Your task to perform on an android device: Open Amazon Image 0: 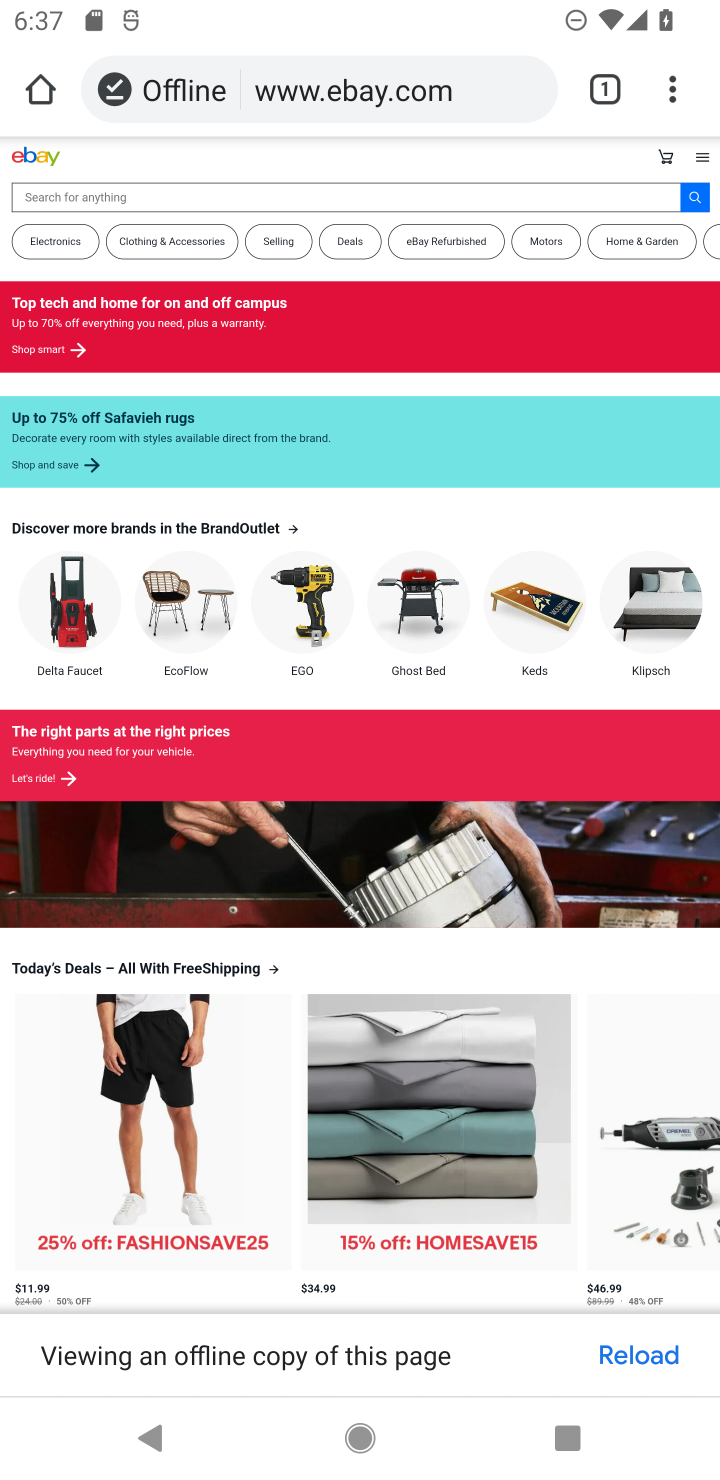
Step 0: press home button
Your task to perform on an android device: Open Amazon Image 1: 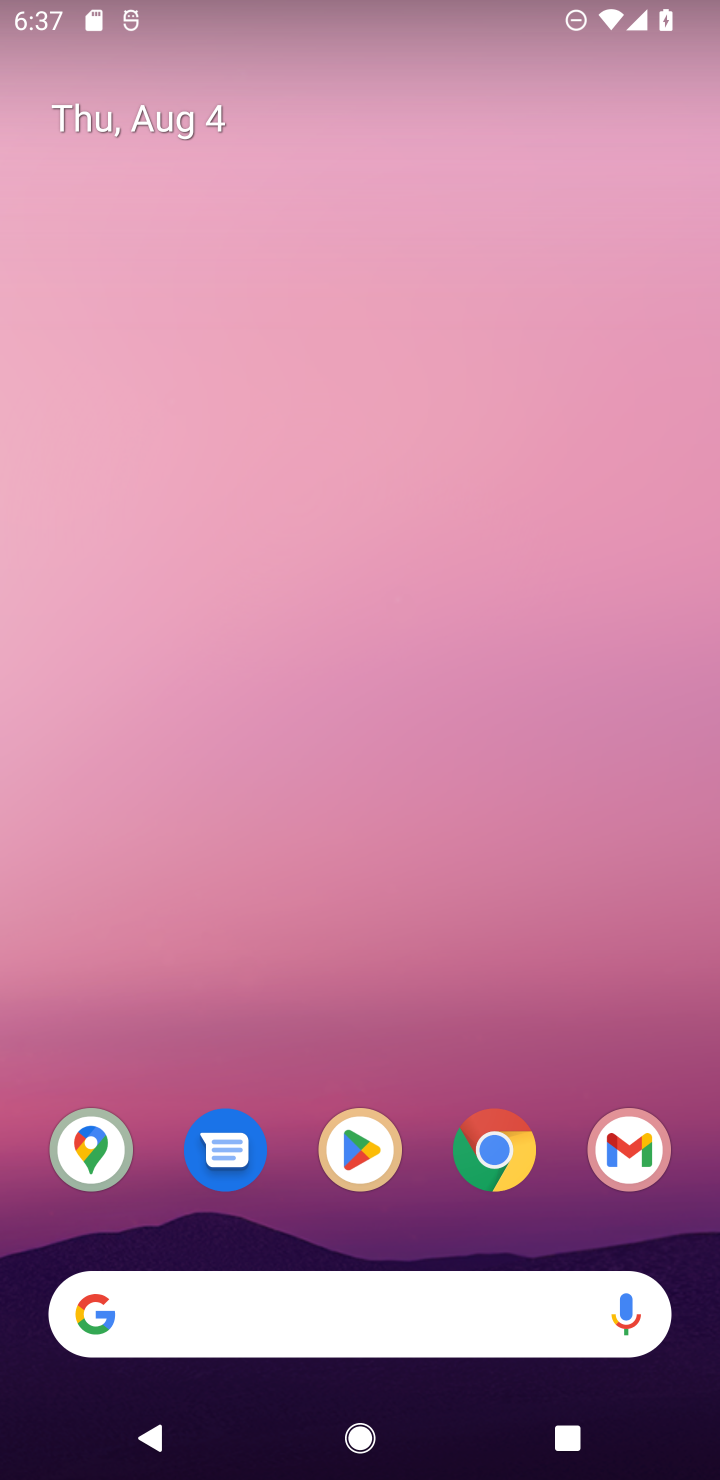
Step 1: drag from (450, 1319) to (628, 55)
Your task to perform on an android device: Open Amazon Image 2: 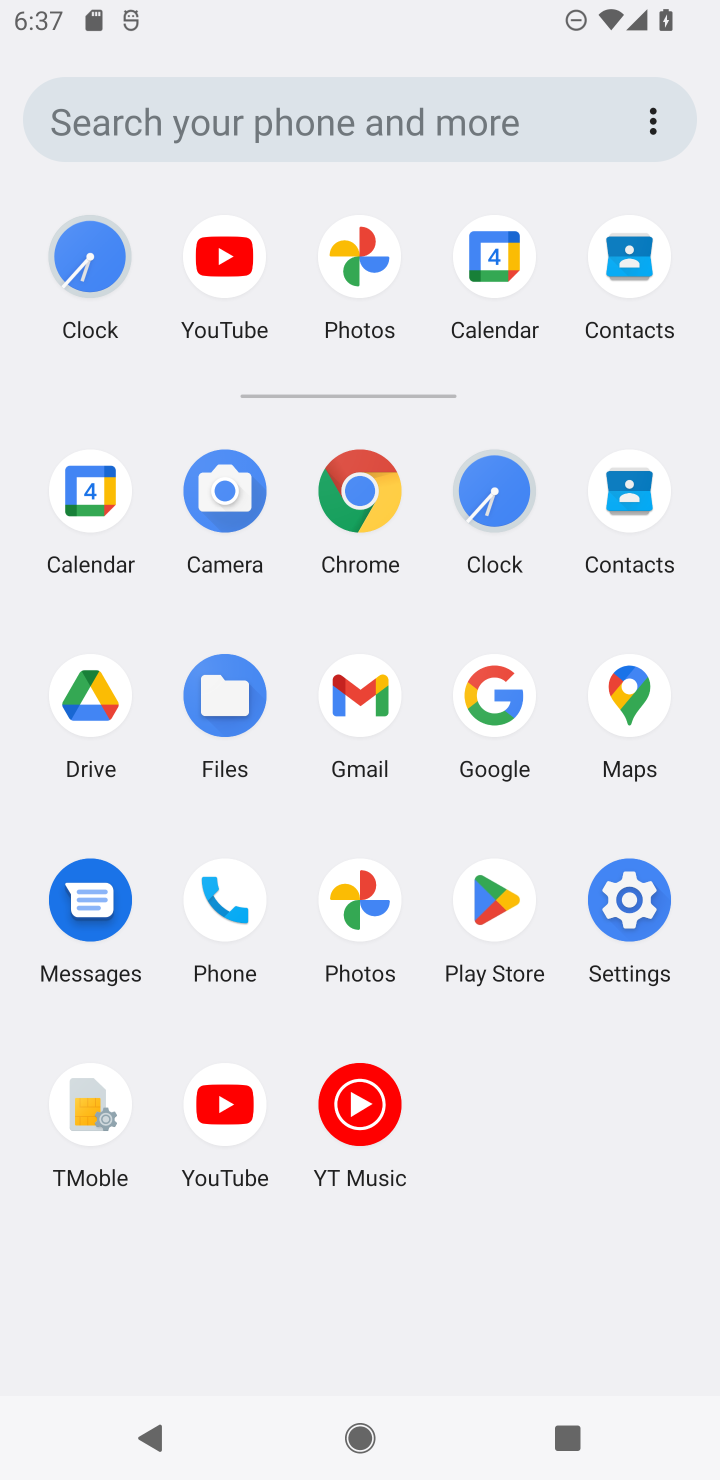
Step 2: click (380, 490)
Your task to perform on an android device: Open Amazon Image 3: 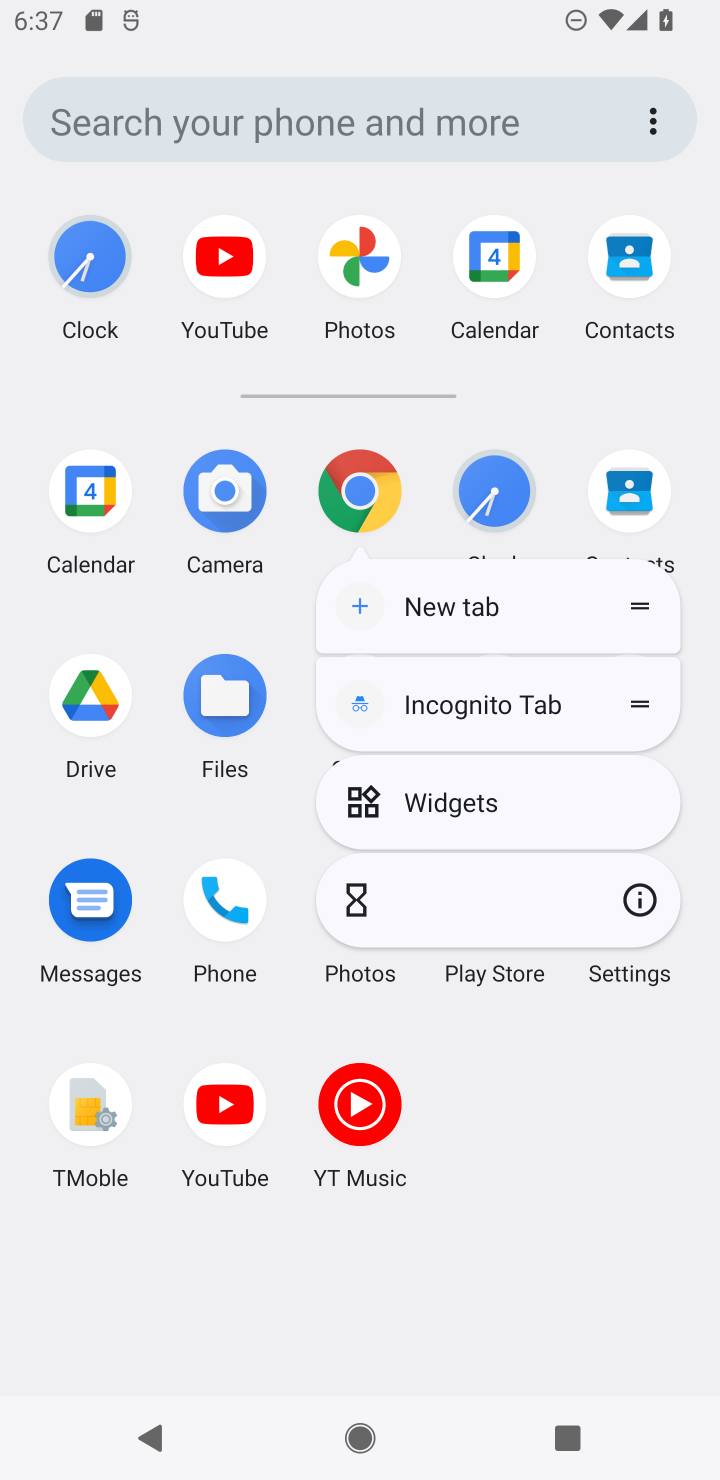
Step 3: click (341, 473)
Your task to perform on an android device: Open Amazon Image 4: 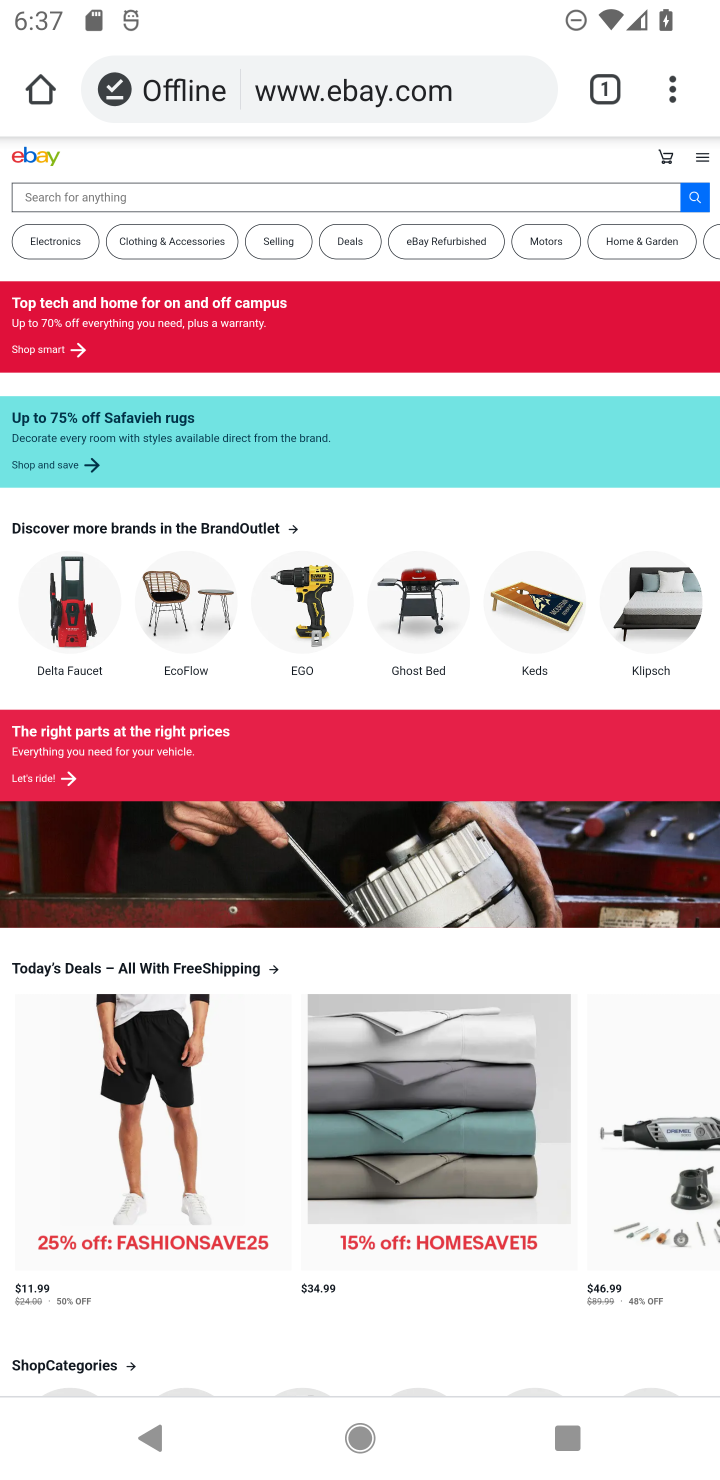
Step 4: drag from (673, 85) to (445, 274)
Your task to perform on an android device: Open Amazon Image 5: 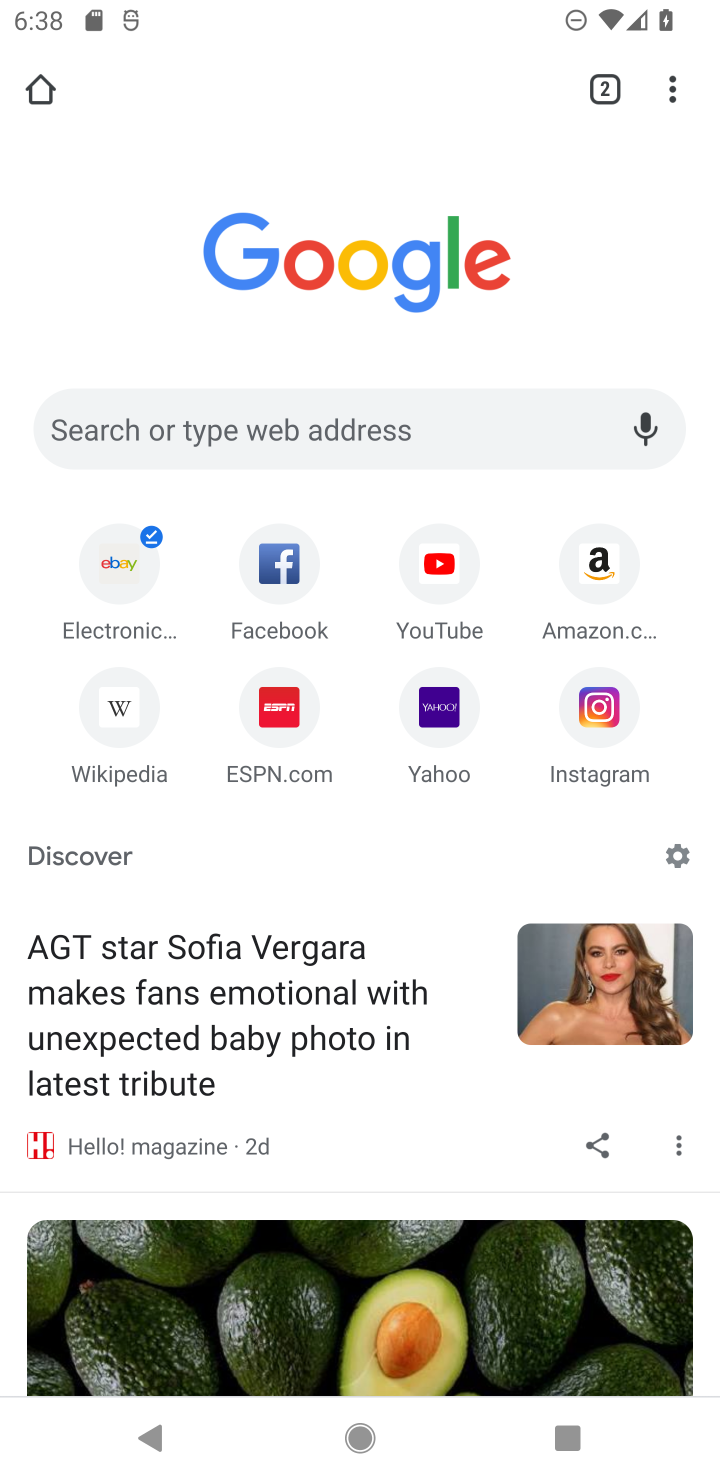
Step 5: click (581, 556)
Your task to perform on an android device: Open Amazon Image 6: 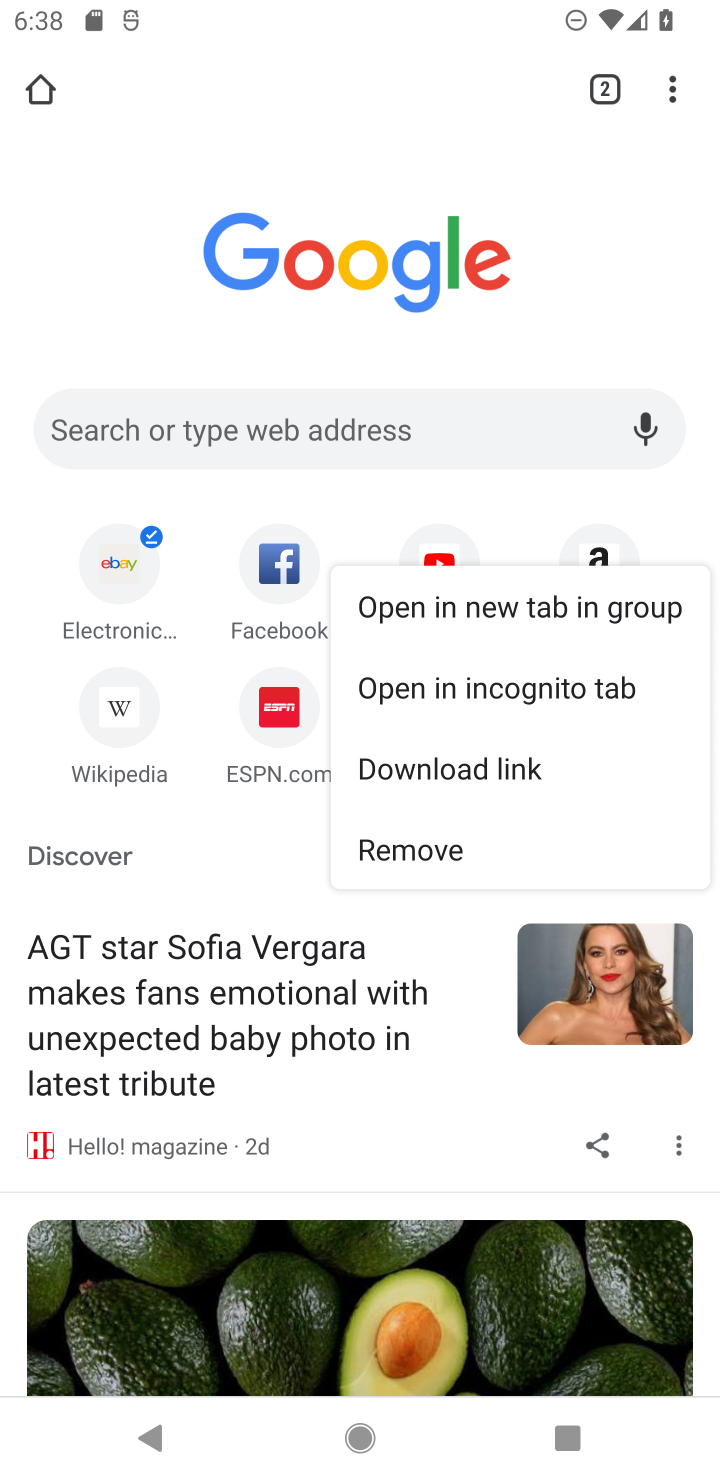
Step 6: click (588, 545)
Your task to perform on an android device: Open Amazon Image 7: 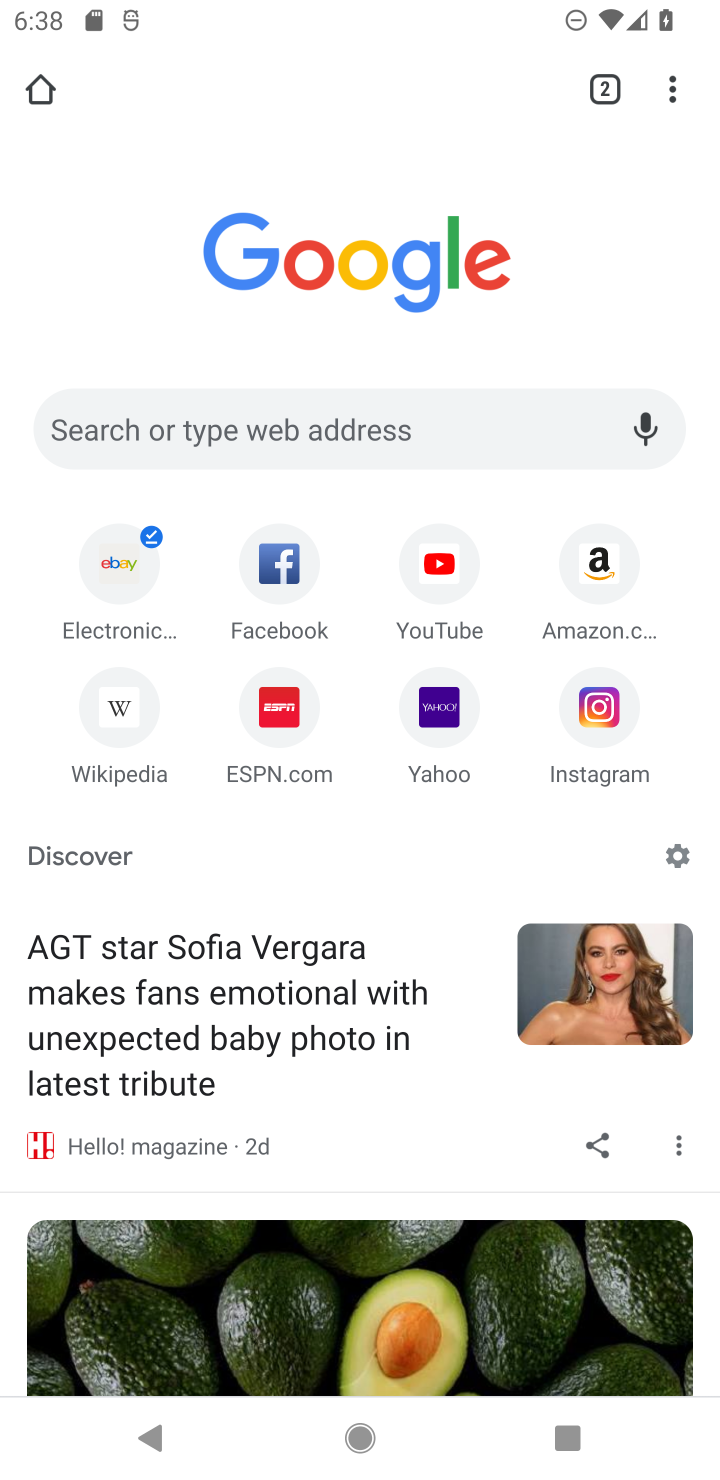
Step 7: click (588, 545)
Your task to perform on an android device: Open Amazon Image 8: 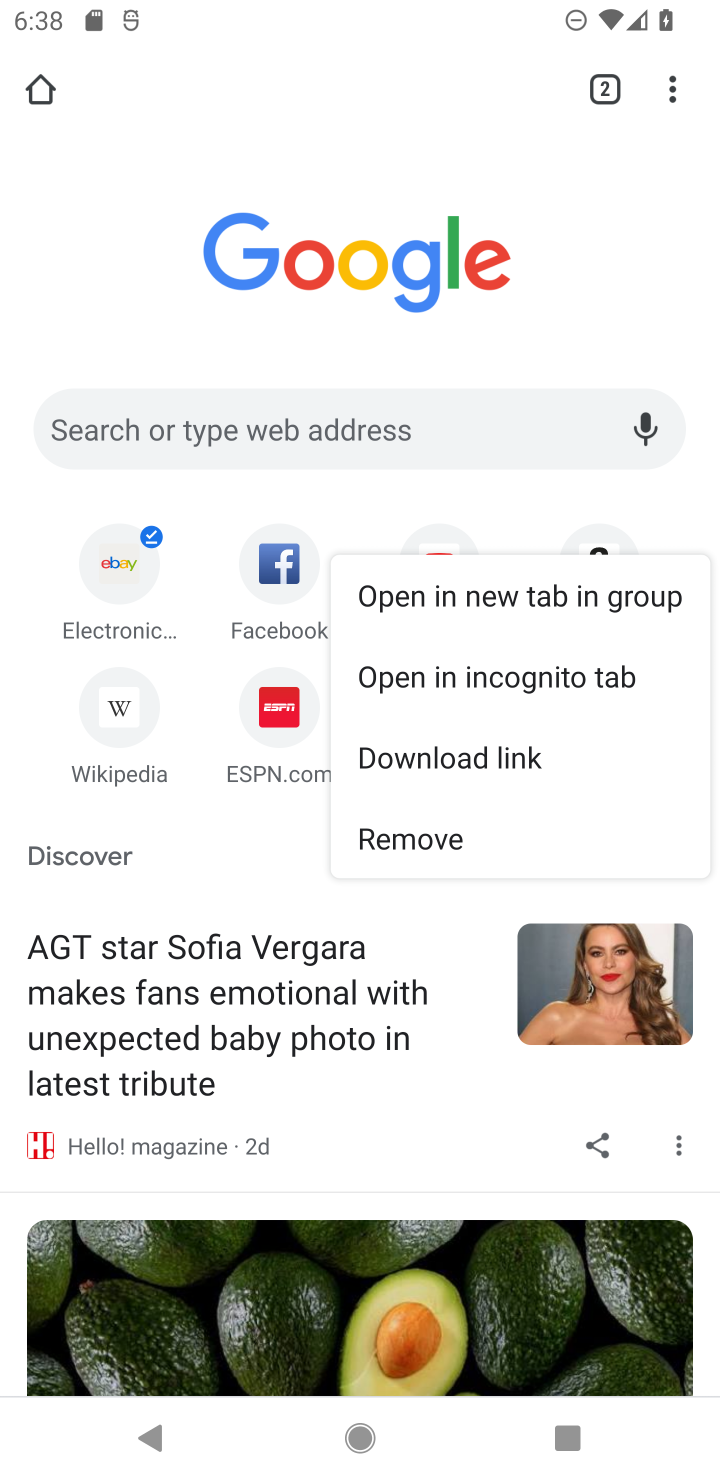
Step 8: click (588, 545)
Your task to perform on an android device: Open Amazon Image 9: 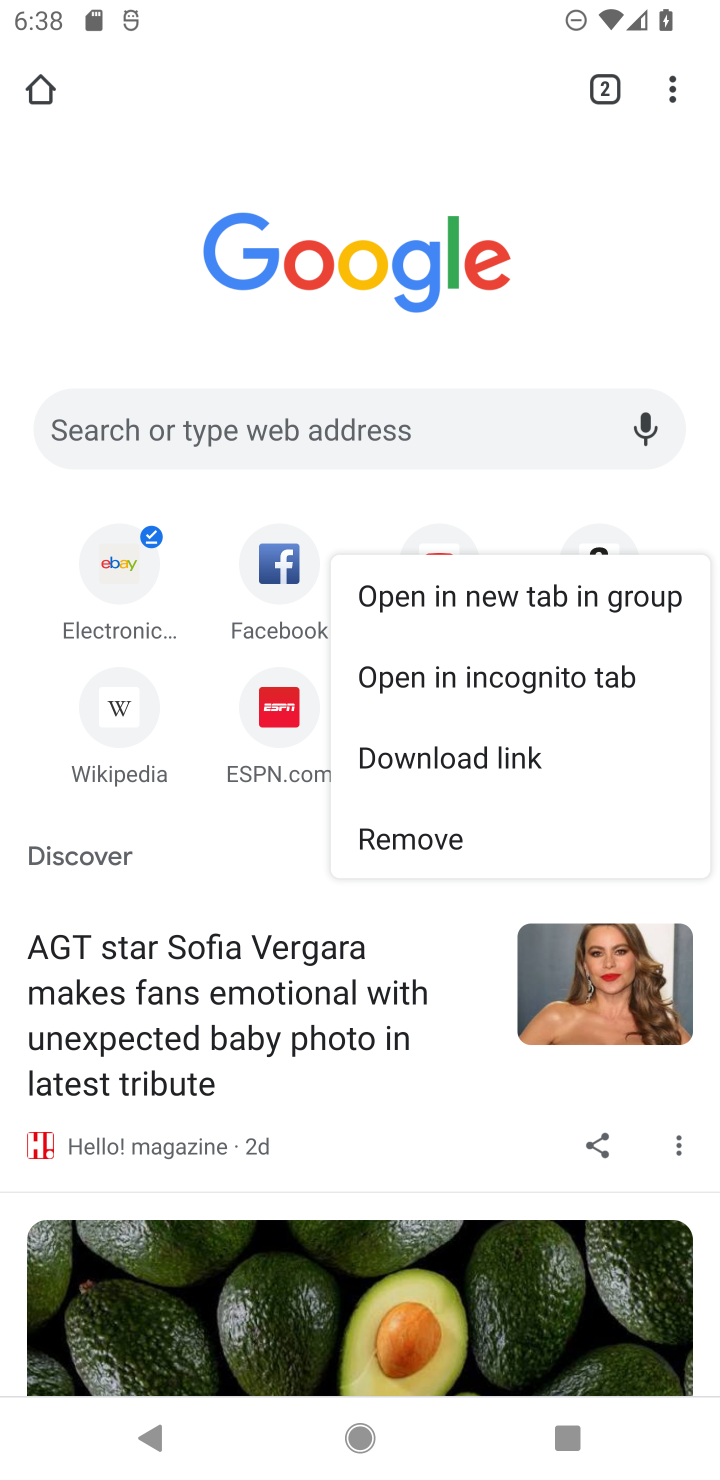
Step 9: click (595, 548)
Your task to perform on an android device: Open Amazon Image 10: 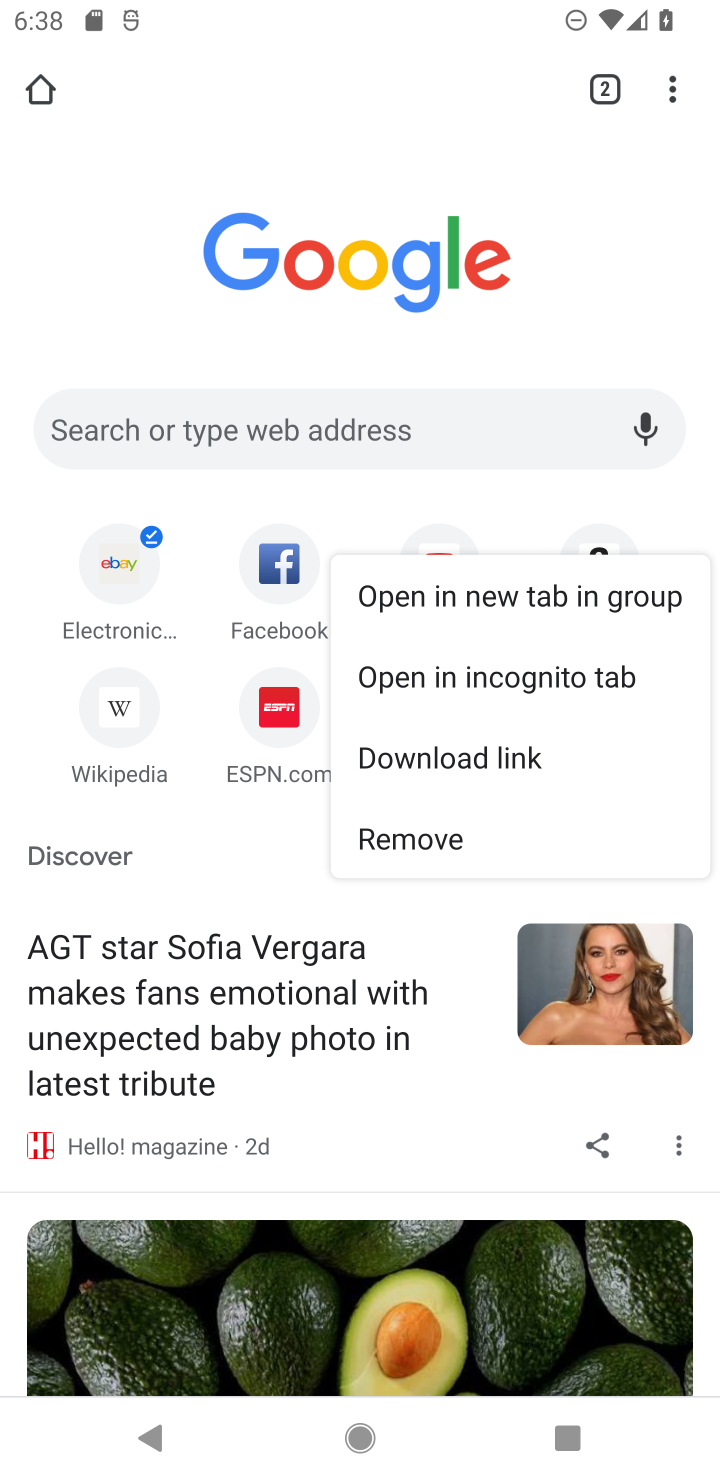
Step 10: click (599, 541)
Your task to perform on an android device: Open Amazon Image 11: 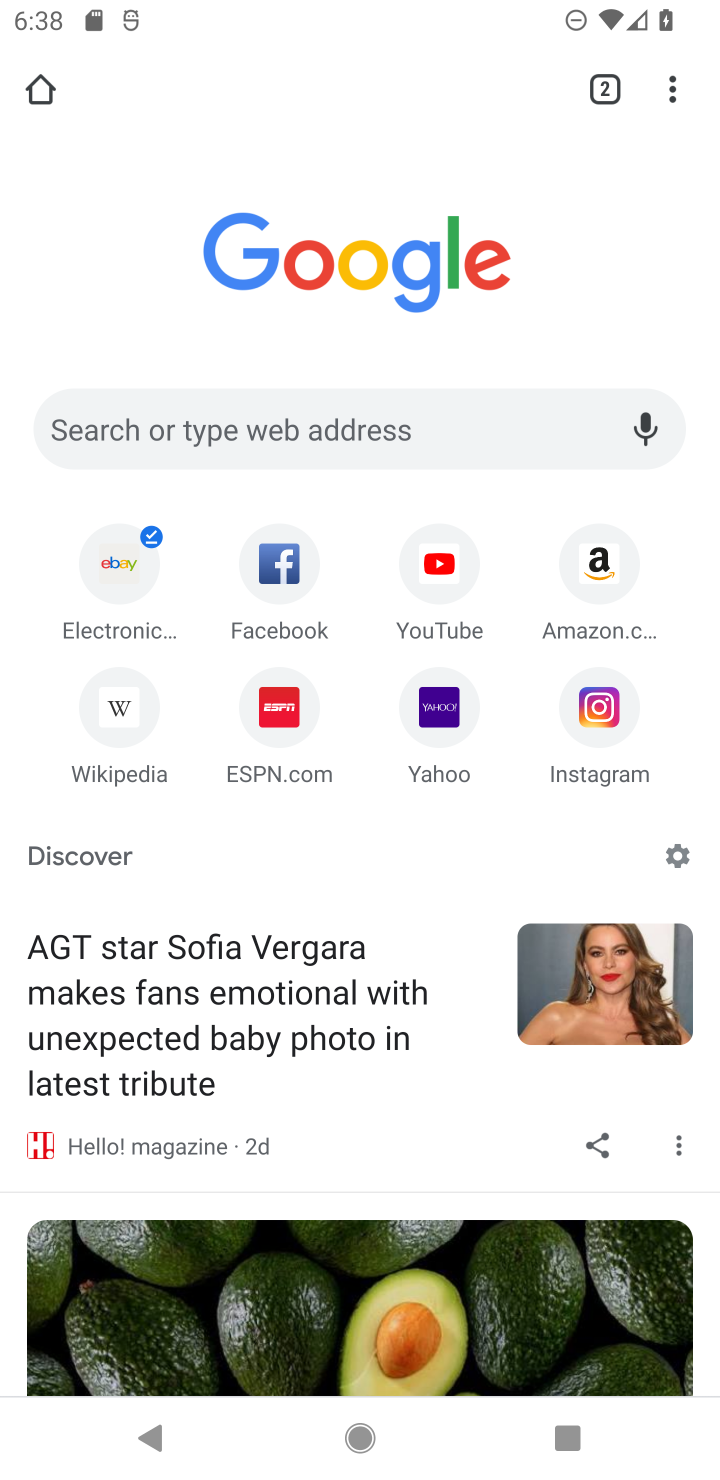
Step 11: click (637, 270)
Your task to perform on an android device: Open Amazon Image 12: 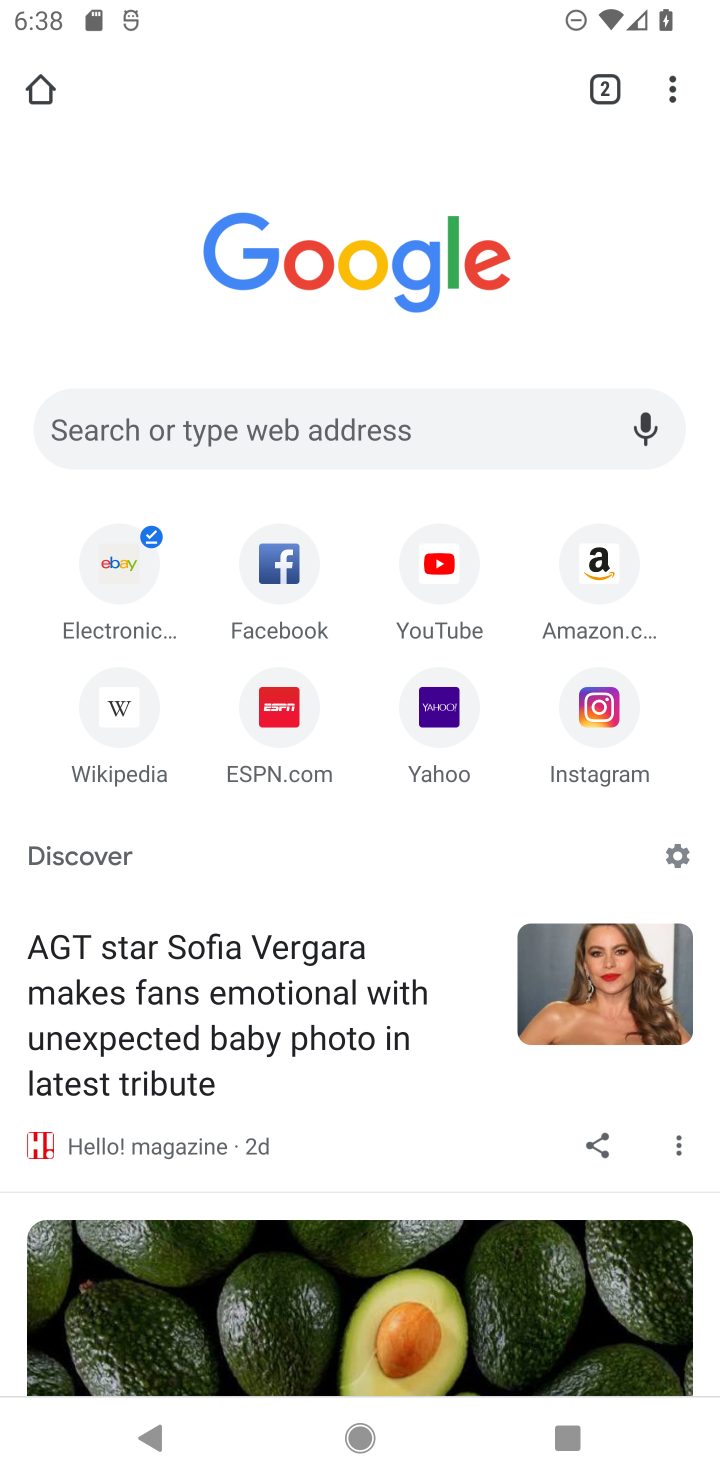
Step 12: click (589, 559)
Your task to perform on an android device: Open Amazon Image 13: 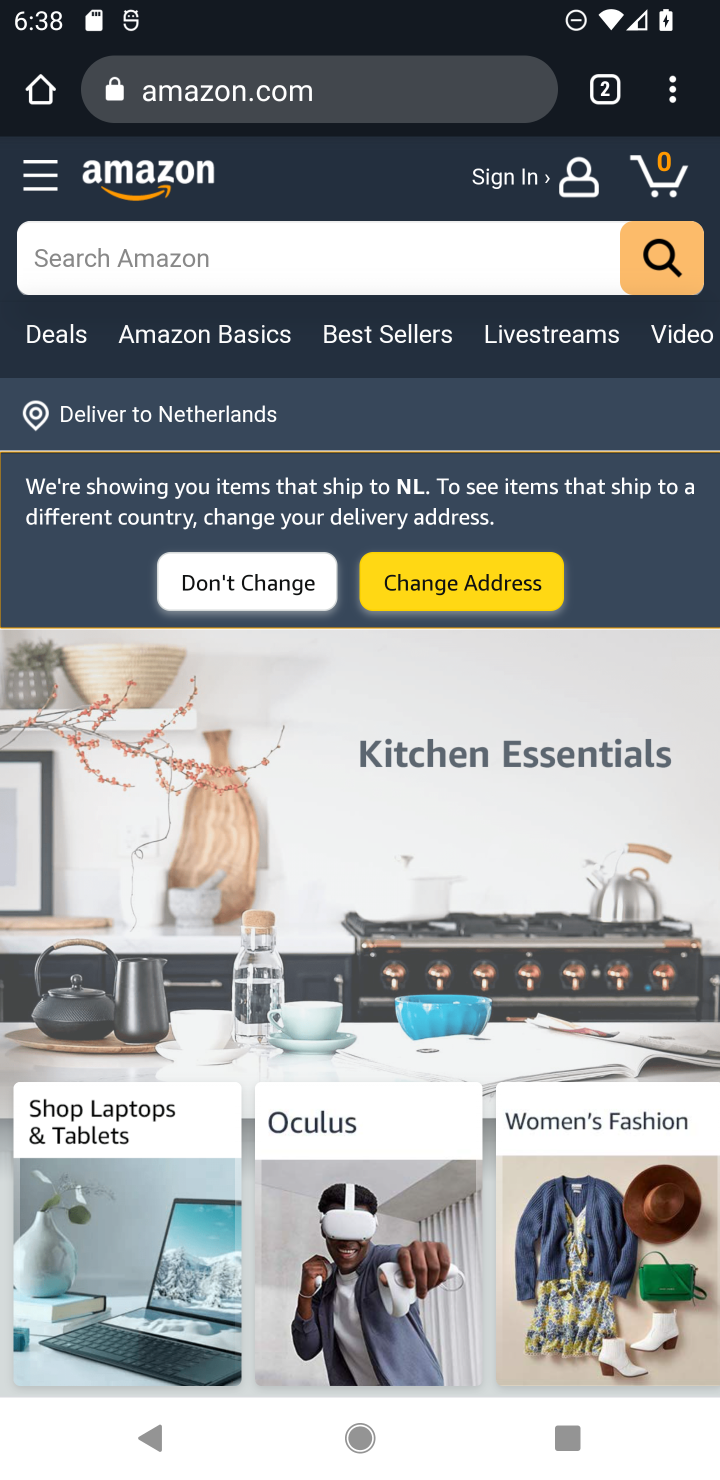
Step 13: task complete